Your task to perform on an android device: set the timer Image 0: 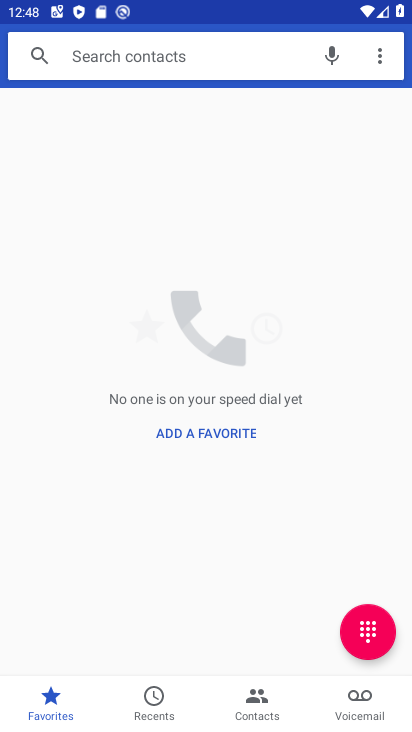
Step 0: press home button
Your task to perform on an android device: set the timer Image 1: 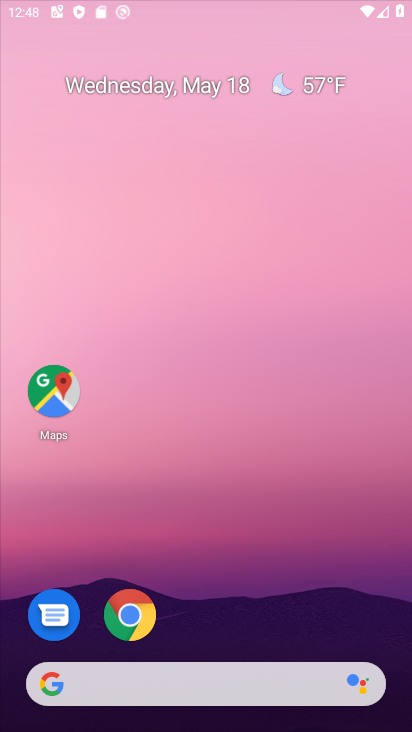
Step 1: drag from (333, 558) to (253, 46)
Your task to perform on an android device: set the timer Image 2: 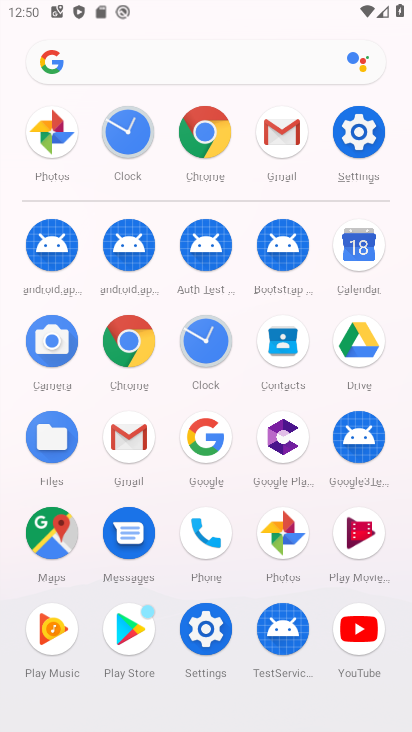
Step 2: click (203, 356)
Your task to perform on an android device: set the timer Image 3: 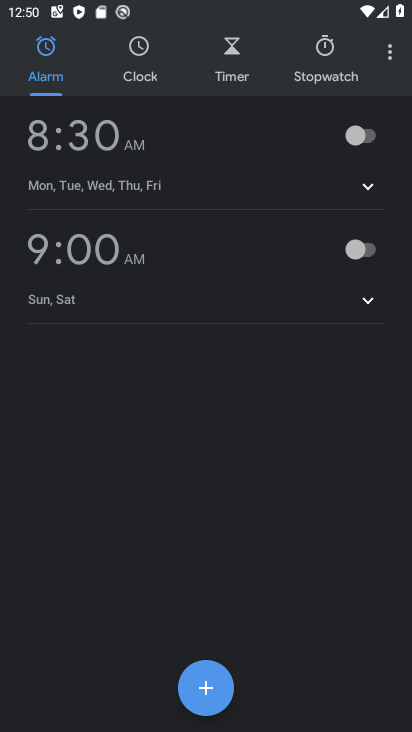
Step 3: click (389, 56)
Your task to perform on an android device: set the timer Image 4: 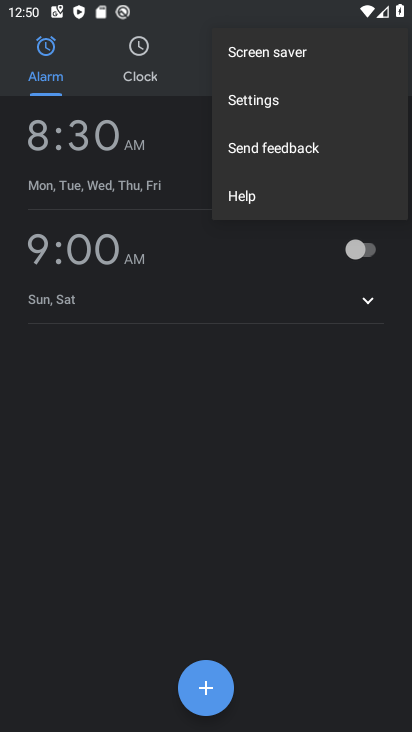
Step 4: click (281, 101)
Your task to perform on an android device: set the timer Image 5: 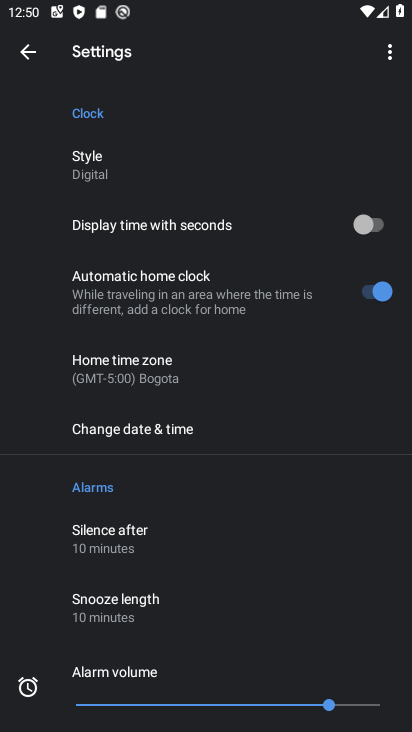
Step 5: click (196, 378)
Your task to perform on an android device: set the timer Image 6: 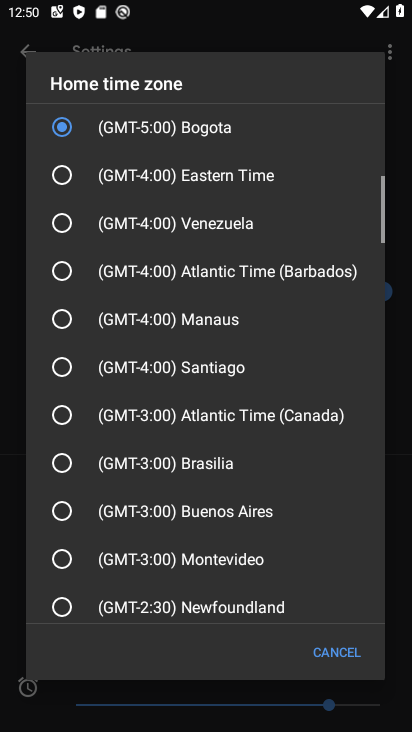
Step 6: click (168, 326)
Your task to perform on an android device: set the timer Image 7: 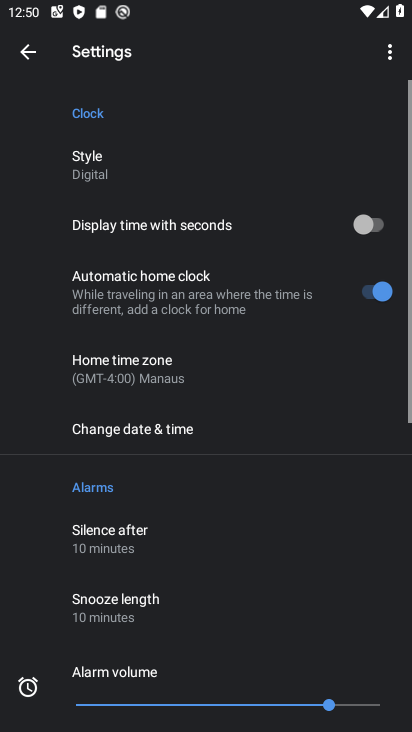
Step 7: task complete